Your task to perform on an android device: Clear all items from cart on ebay. Image 0: 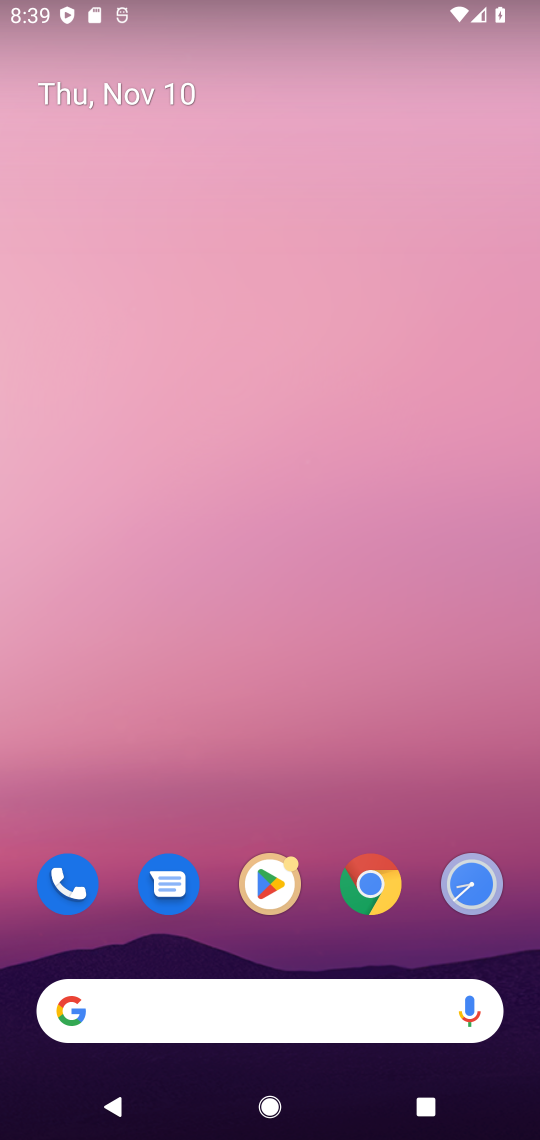
Step 0: click (292, 1010)
Your task to perform on an android device: Clear all items from cart on ebay. Image 1: 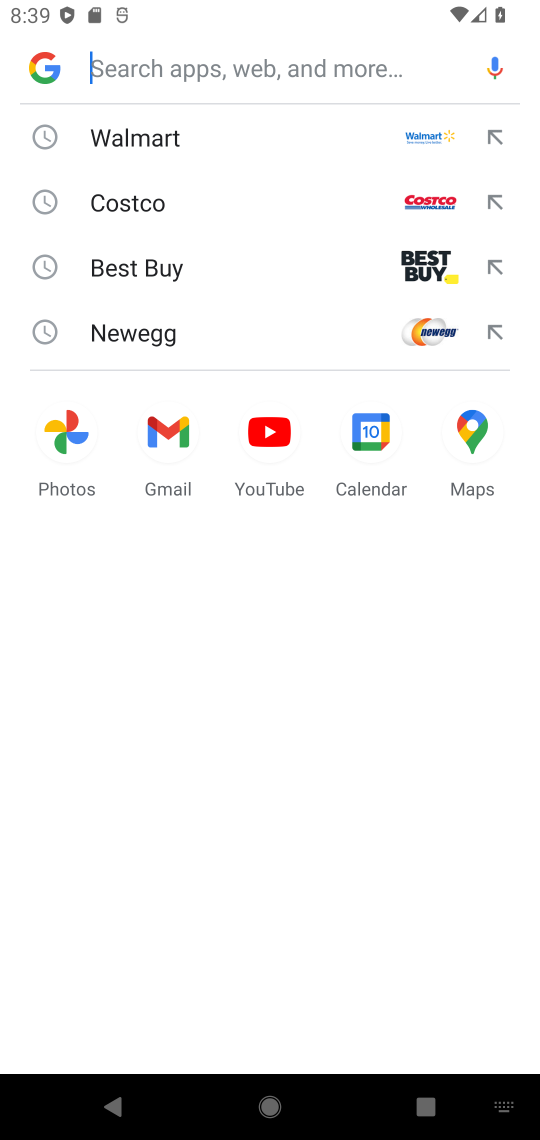
Step 1: type "ebay"
Your task to perform on an android device: Clear all items from cart on ebay. Image 2: 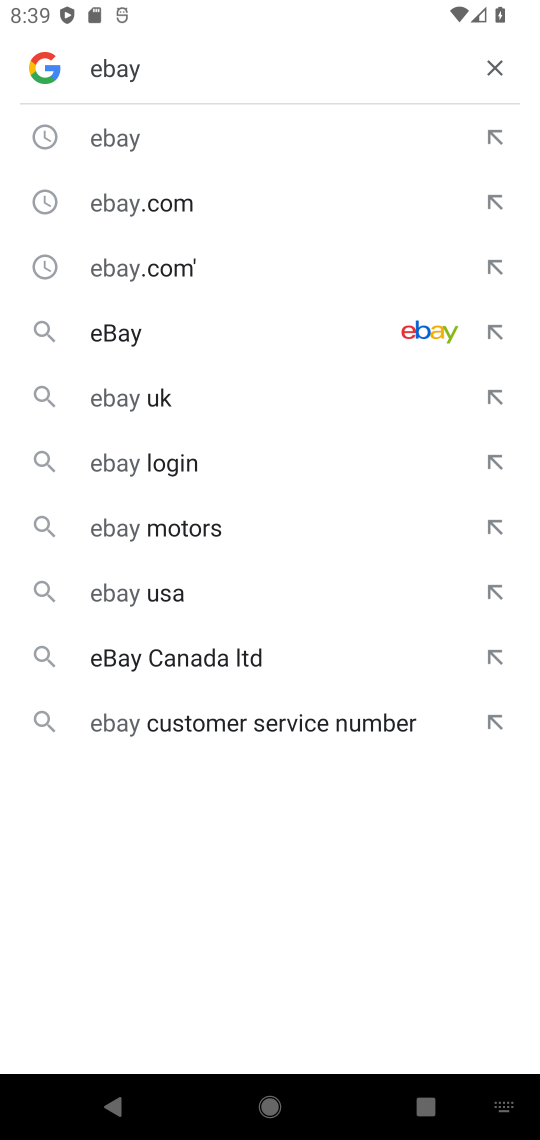
Step 2: click (249, 323)
Your task to perform on an android device: Clear all items from cart on ebay. Image 3: 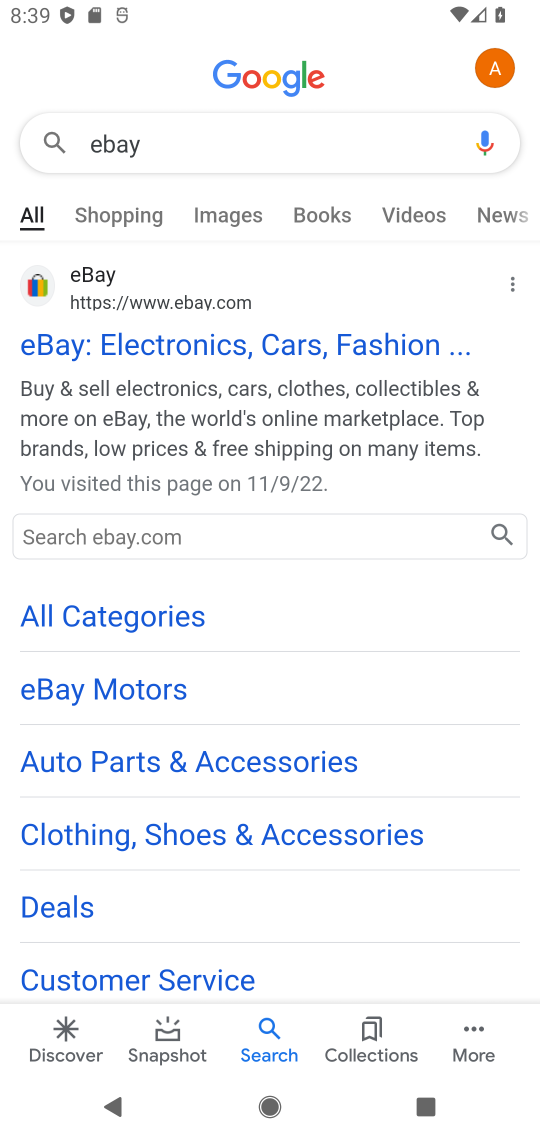
Step 3: click (176, 344)
Your task to perform on an android device: Clear all items from cart on ebay. Image 4: 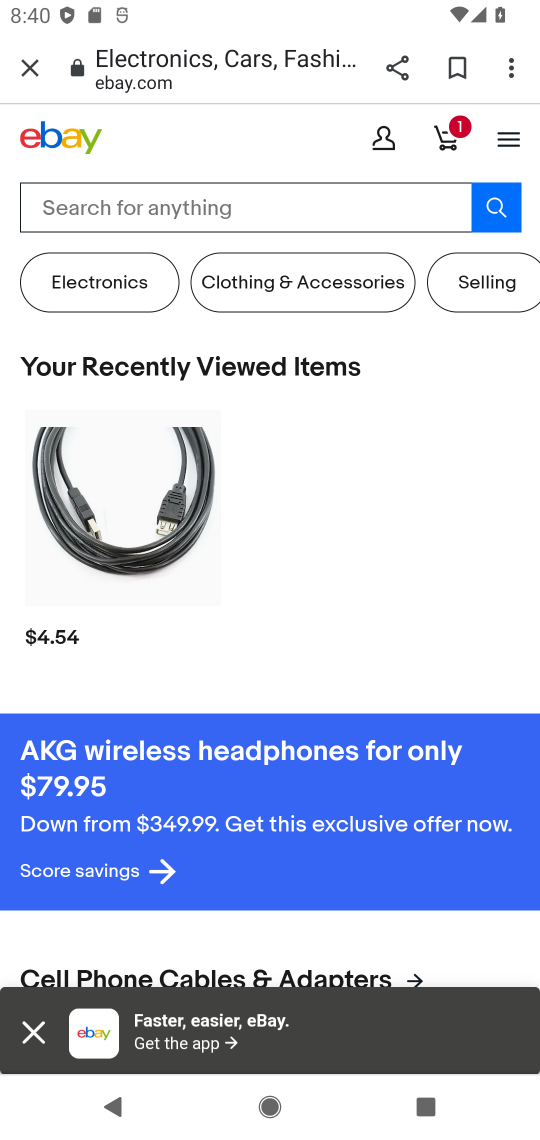
Step 4: click (32, 1027)
Your task to perform on an android device: Clear all items from cart on ebay. Image 5: 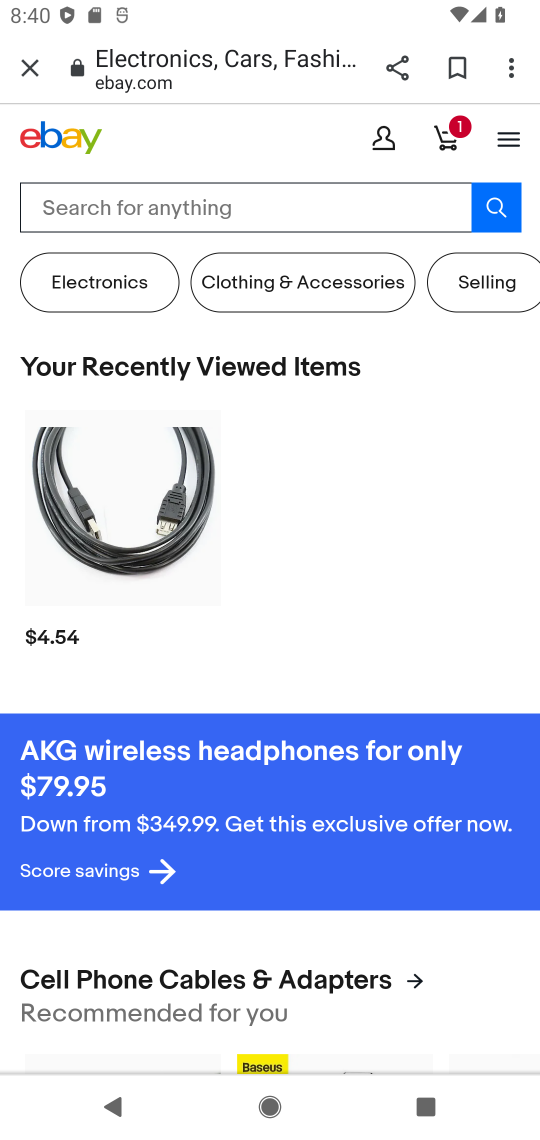
Step 5: click (449, 156)
Your task to perform on an android device: Clear all items from cart on ebay. Image 6: 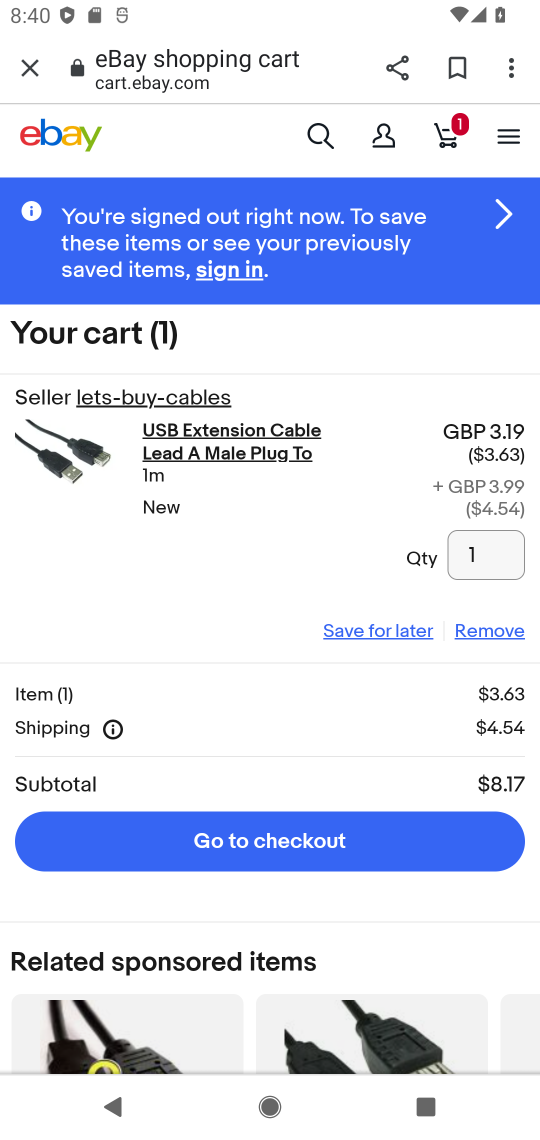
Step 6: click (479, 628)
Your task to perform on an android device: Clear all items from cart on ebay. Image 7: 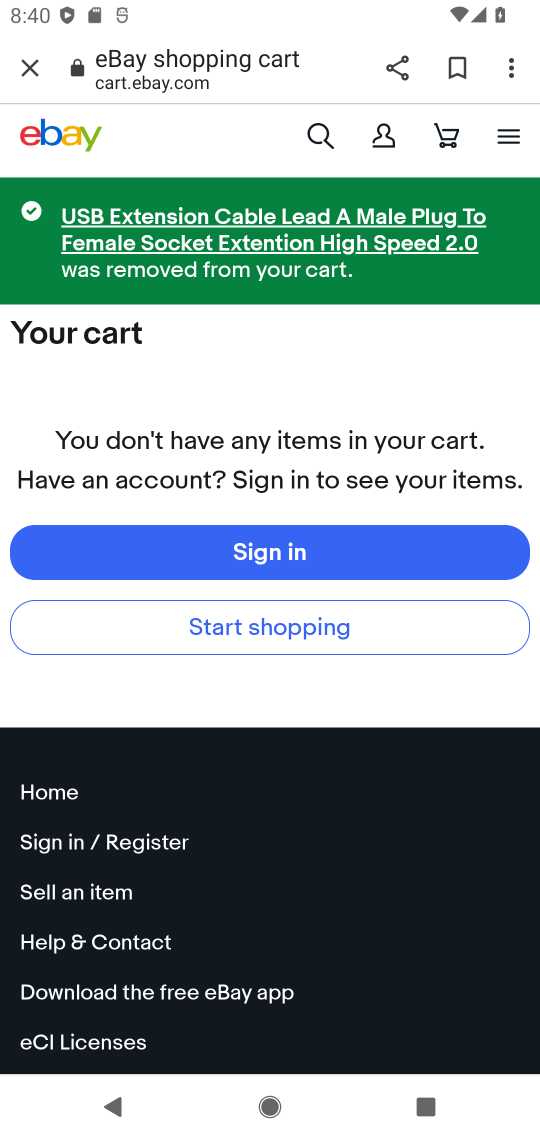
Step 7: task complete